Your task to perform on an android device: star an email in the gmail app Image 0: 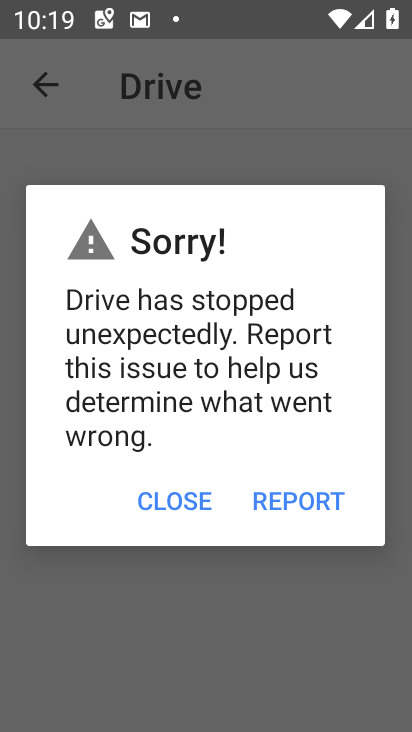
Step 0: press home button
Your task to perform on an android device: star an email in the gmail app Image 1: 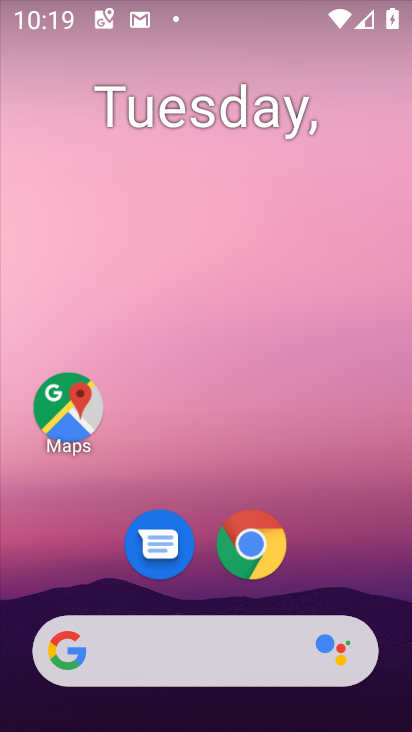
Step 1: drag from (355, 575) to (316, 148)
Your task to perform on an android device: star an email in the gmail app Image 2: 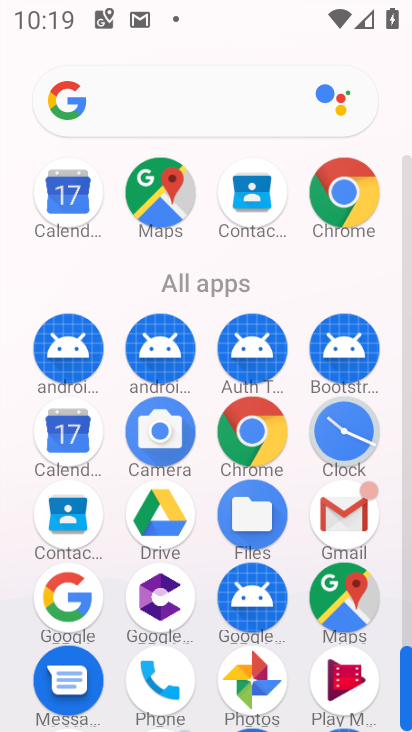
Step 2: click (347, 525)
Your task to perform on an android device: star an email in the gmail app Image 3: 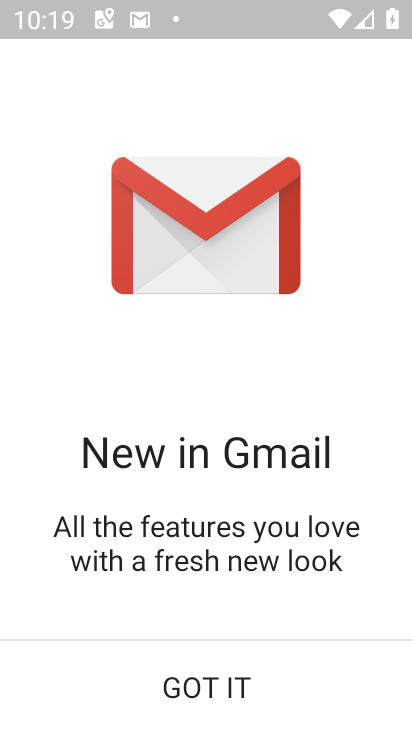
Step 3: click (227, 698)
Your task to perform on an android device: star an email in the gmail app Image 4: 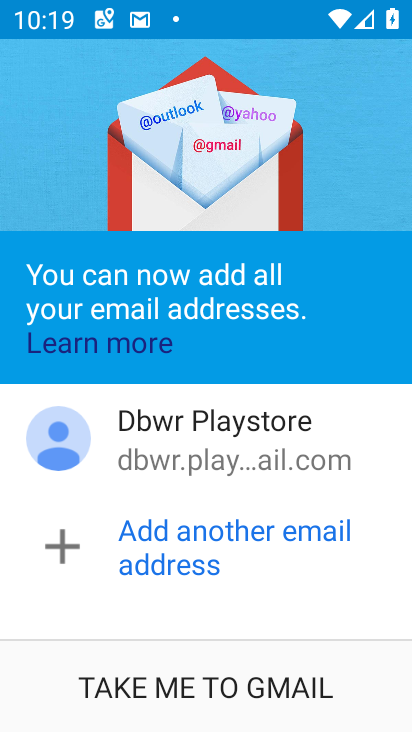
Step 4: click (227, 698)
Your task to perform on an android device: star an email in the gmail app Image 5: 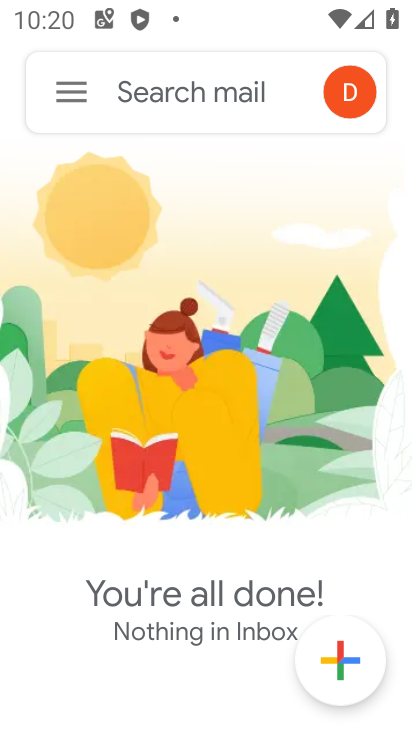
Step 5: task complete